Your task to perform on an android device: Open the phone app and click the voicemail tab. Image 0: 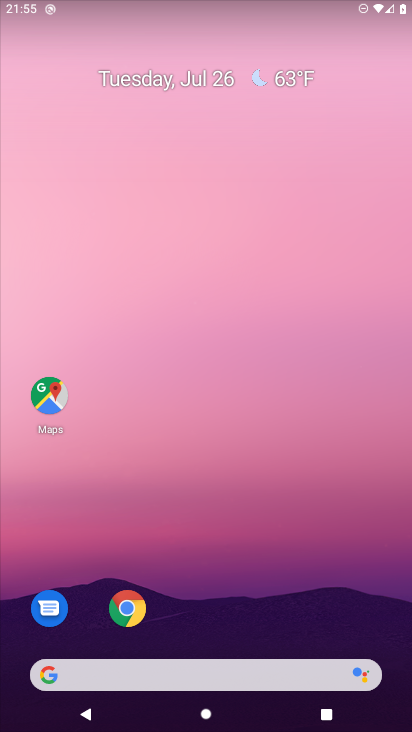
Step 0: drag from (33, 716) to (245, 15)
Your task to perform on an android device: Open the phone app and click the voicemail tab. Image 1: 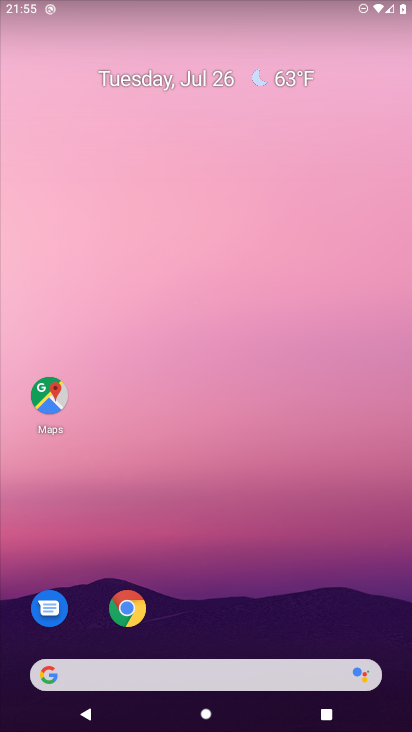
Step 1: drag from (22, 689) to (262, 43)
Your task to perform on an android device: Open the phone app and click the voicemail tab. Image 2: 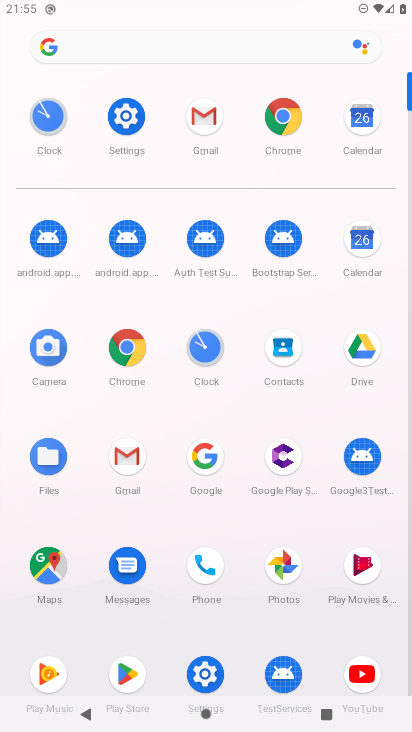
Step 2: click (197, 575)
Your task to perform on an android device: Open the phone app and click the voicemail tab. Image 3: 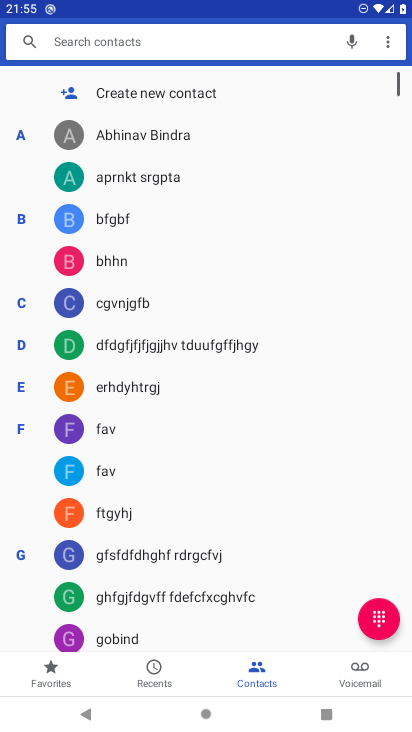
Step 3: click (353, 665)
Your task to perform on an android device: Open the phone app and click the voicemail tab. Image 4: 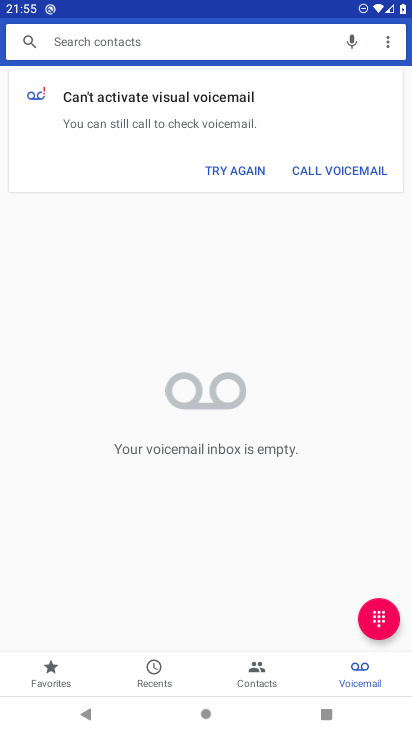
Step 4: task complete